Your task to perform on an android device: Open ESPN.com Image 0: 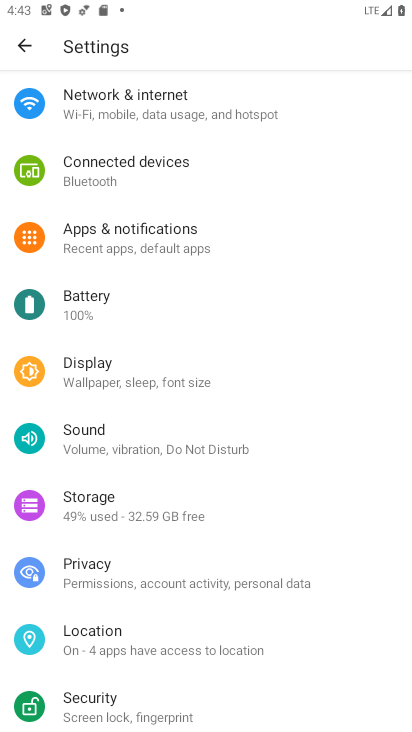
Step 0: press home button
Your task to perform on an android device: Open ESPN.com Image 1: 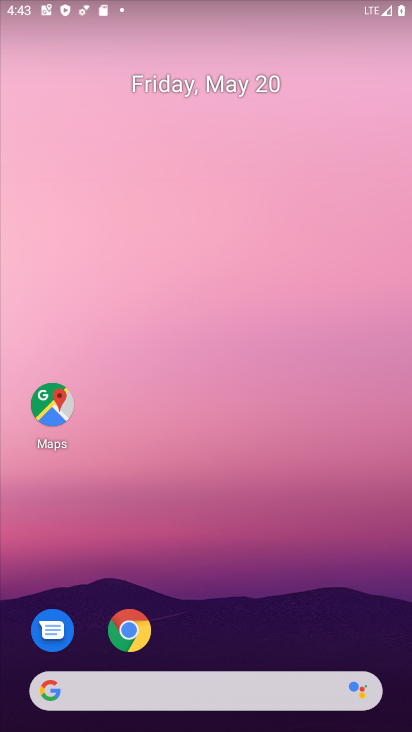
Step 1: click (235, 693)
Your task to perform on an android device: Open ESPN.com Image 2: 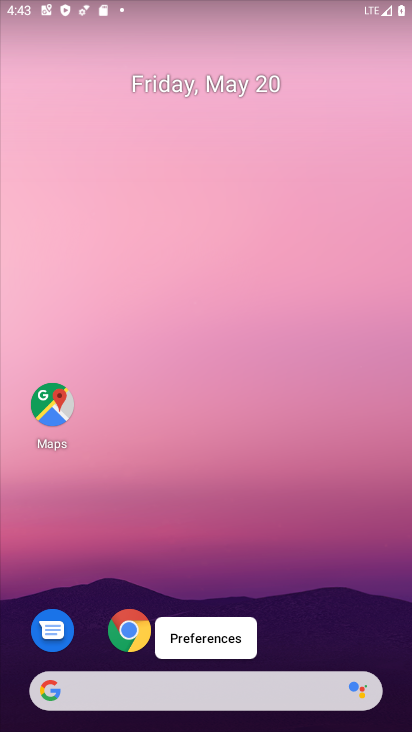
Step 2: click (242, 702)
Your task to perform on an android device: Open ESPN.com Image 3: 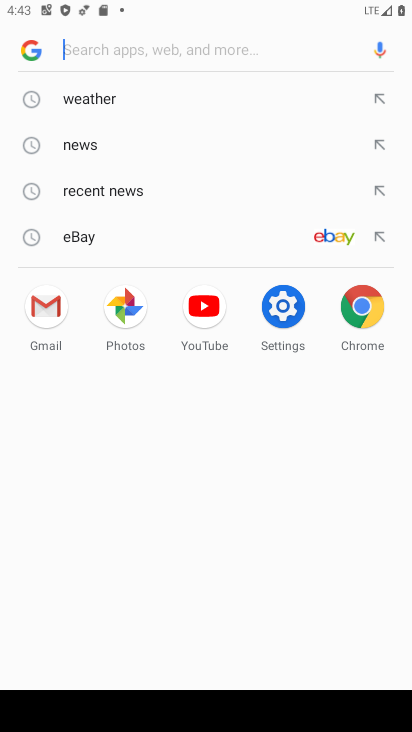
Step 3: type "espn.com"
Your task to perform on an android device: Open ESPN.com Image 4: 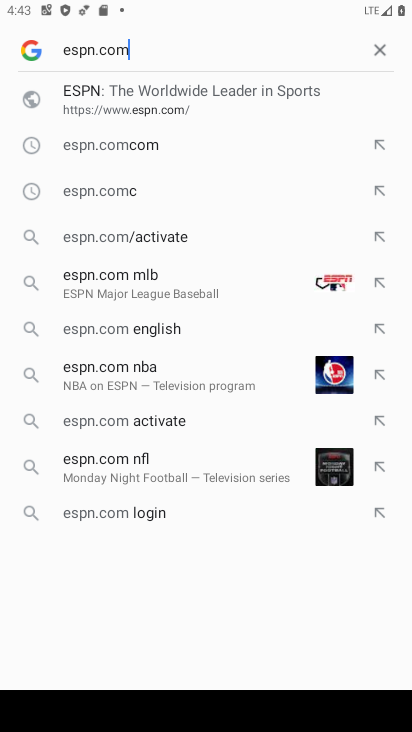
Step 4: click (107, 86)
Your task to perform on an android device: Open ESPN.com Image 5: 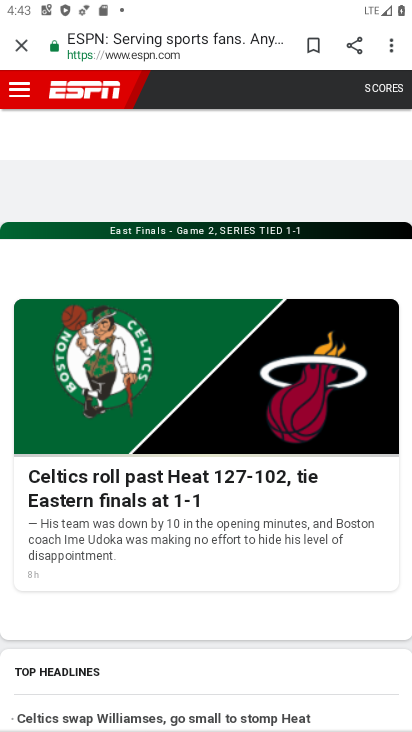
Step 5: task complete